Your task to perform on an android device: Go to sound settings Image 0: 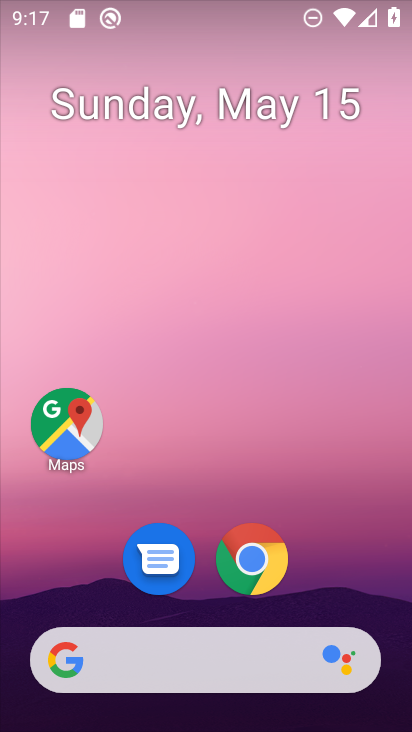
Step 0: drag from (397, 576) to (371, 151)
Your task to perform on an android device: Go to sound settings Image 1: 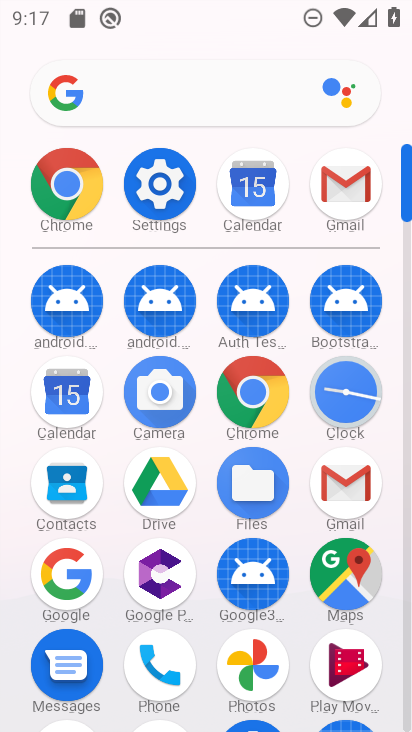
Step 1: click (177, 193)
Your task to perform on an android device: Go to sound settings Image 2: 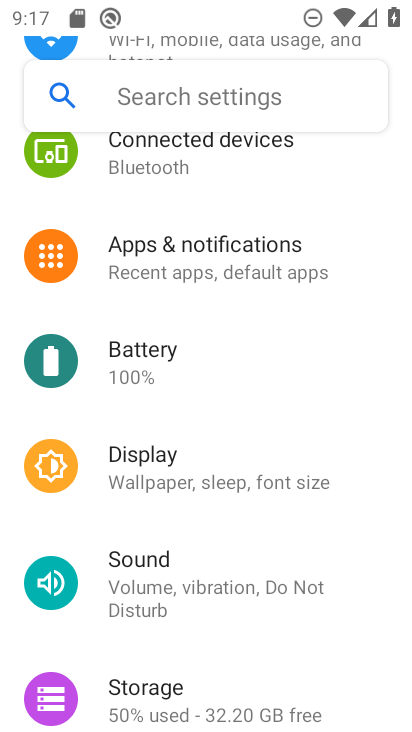
Step 2: click (130, 604)
Your task to perform on an android device: Go to sound settings Image 3: 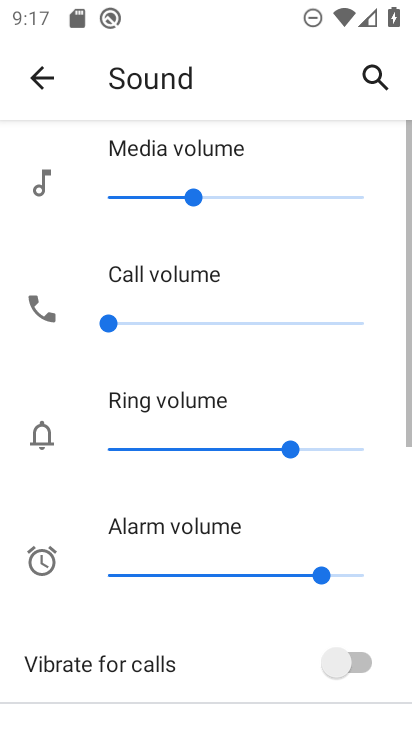
Step 3: task complete